Your task to perform on an android device: open device folders in google photos Image 0: 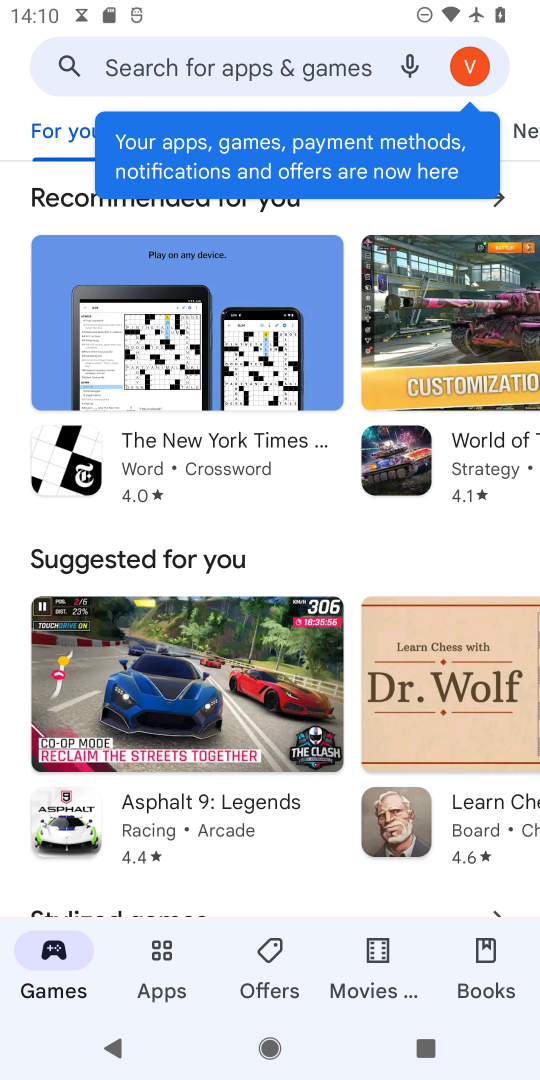
Step 0: press home button
Your task to perform on an android device: open device folders in google photos Image 1: 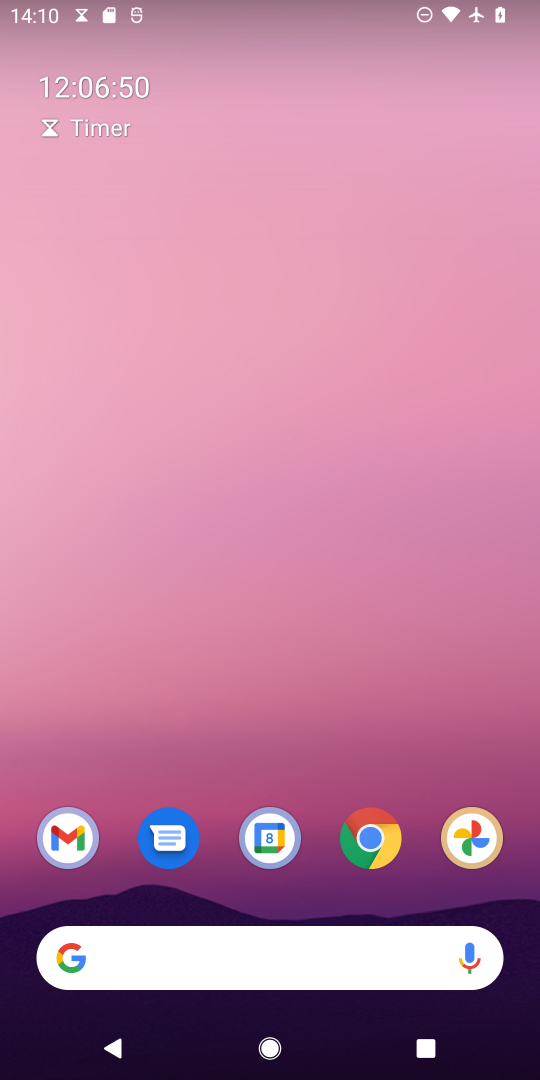
Step 1: click (456, 836)
Your task to perform on an android device: open device folders in google photos Image 2: 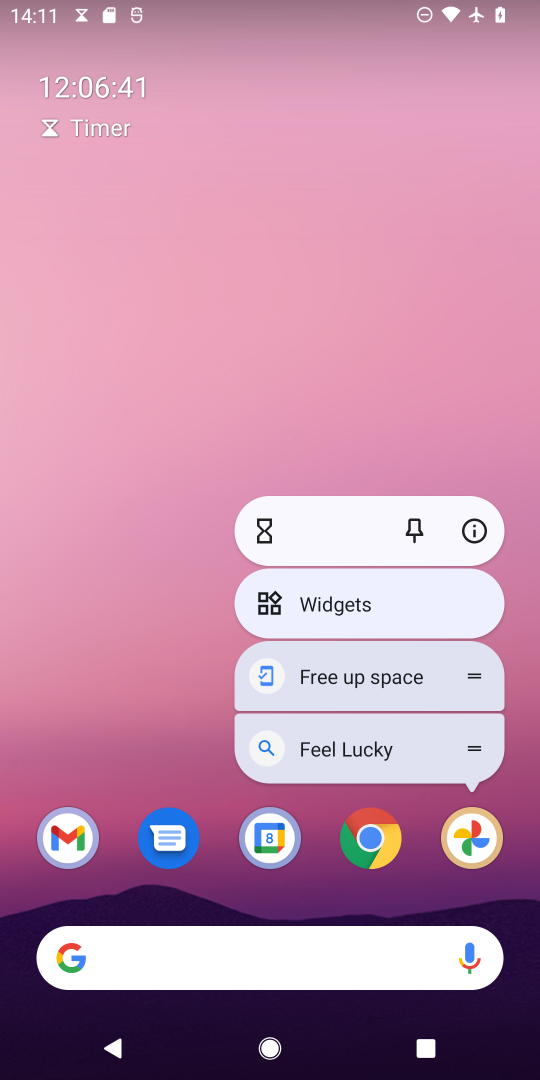
Step 2: click (469, 842)
Your task to perform on an android device: open device folders in google photos Image 3: 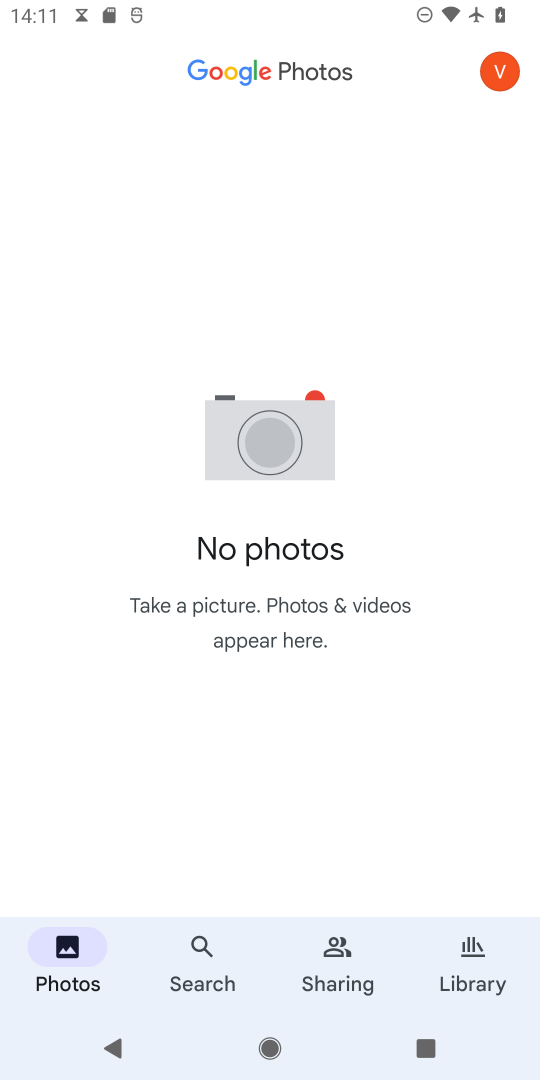
Step 3: task complete